Your task to perform on an android device: Go to battery settings Image 0: 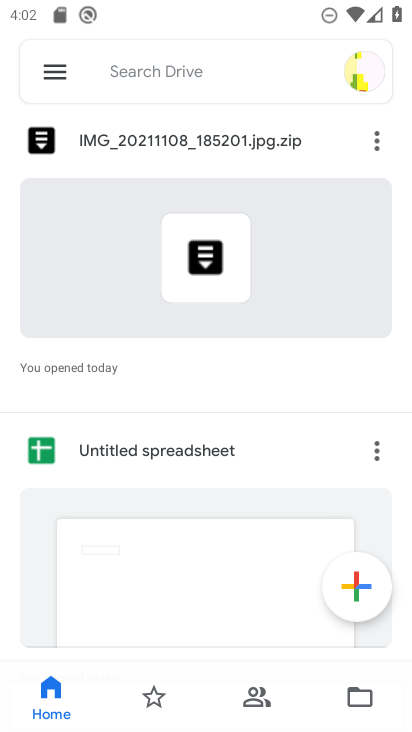
Step 0: press home button
Your task to perform on an android device: Go to battery settings Image 1: 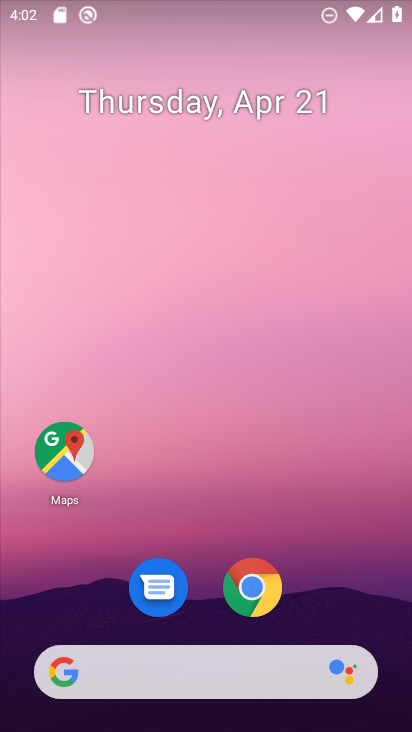
Step 1: drag from (361, 572) to (372, 7)
Your task to perform on an android device: Go to battery settings Image 2: 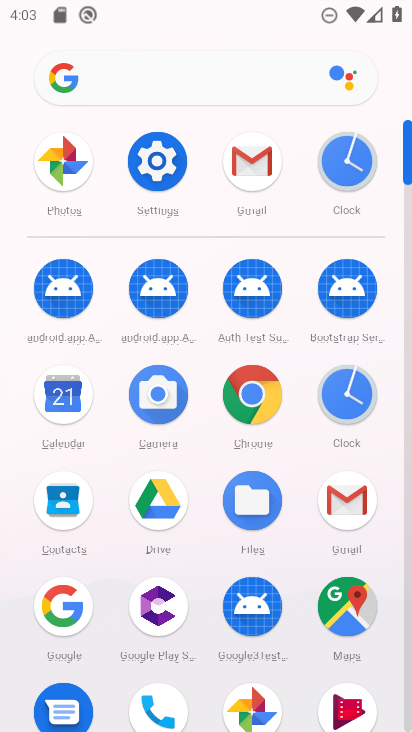
Step 2: click (157, 169)
Your task to perform on an android device: Go to battery settings Image 3: 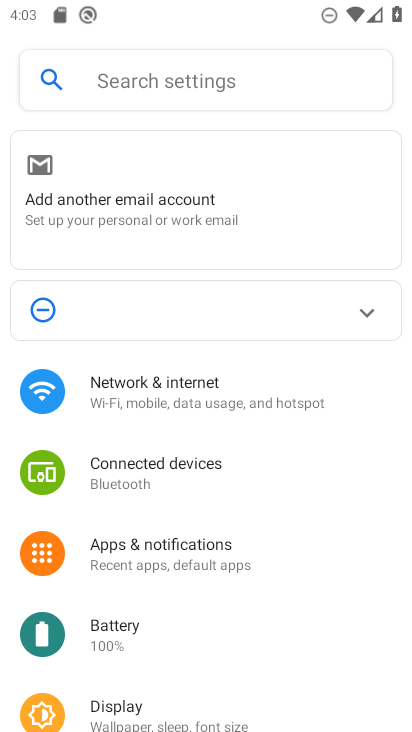
Step 3: click (103, 626)
Your task to perform on an android device: Go to battery settings Image 4: 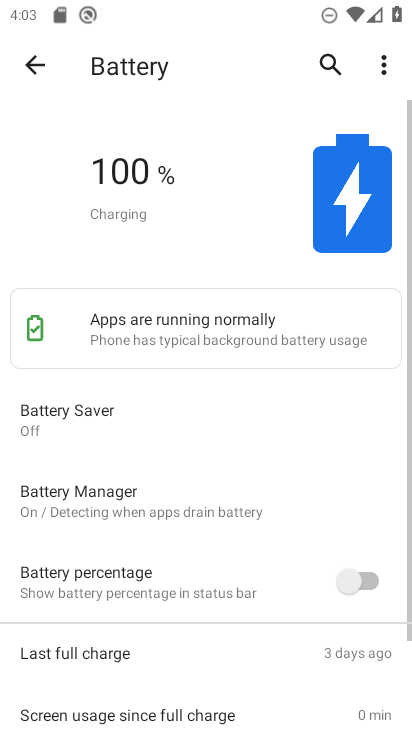
Step 4: task complete